Your task to perform on an android device: Show me the alarms in the clock app Image 0: 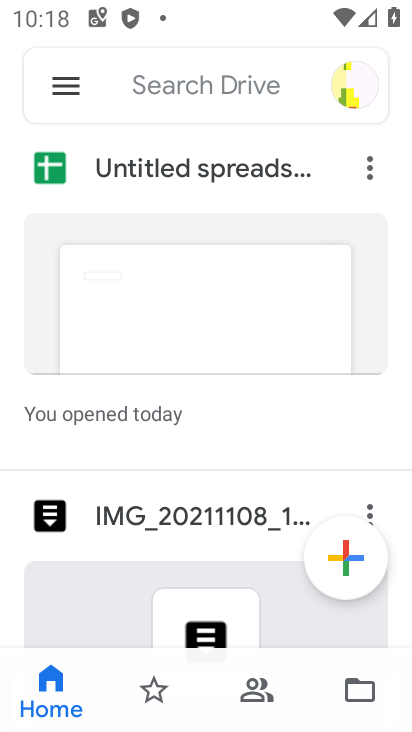
Step 0: press home button
Your task to perform on an android device: Show me the alarms in the clock app Image 1: 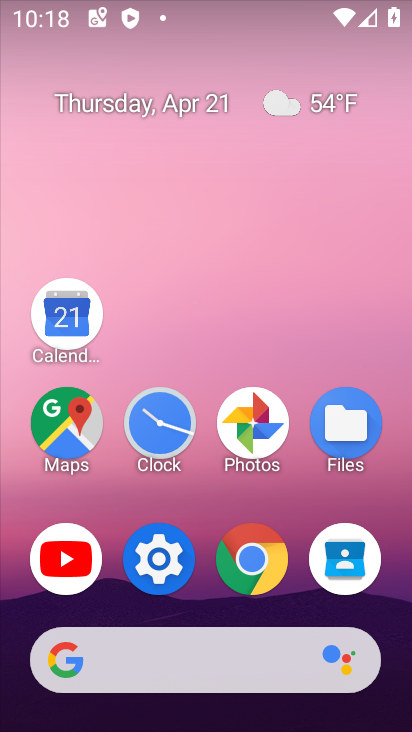
Step 1: click (161, 438)
Your task to perform on an android device: Show me the alarms in the clock app Image 2: 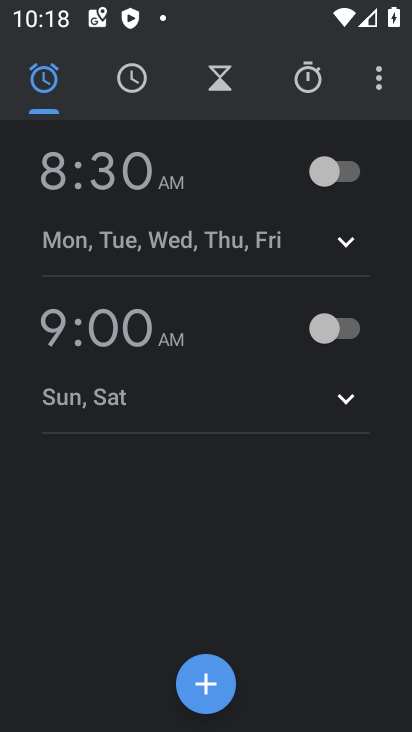
Step 2: task complete